Your task to perform on an android device: Show me the alarms in the clock app Image 0: 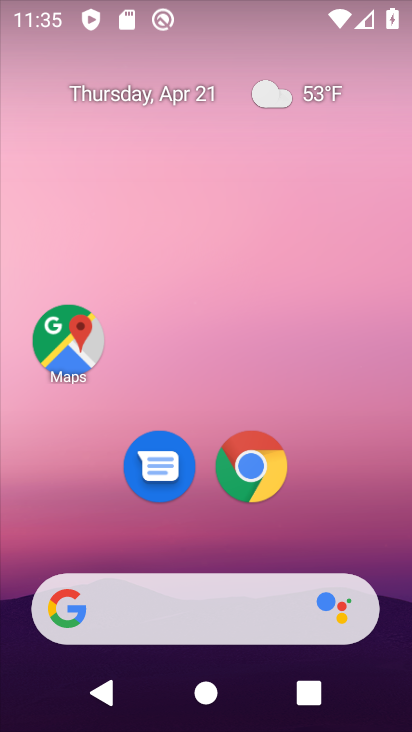
Step 0: drag from (355, 457) to (294, 1)
Your task to perform on an android device: Show me the alarms in the clock app Image 1: 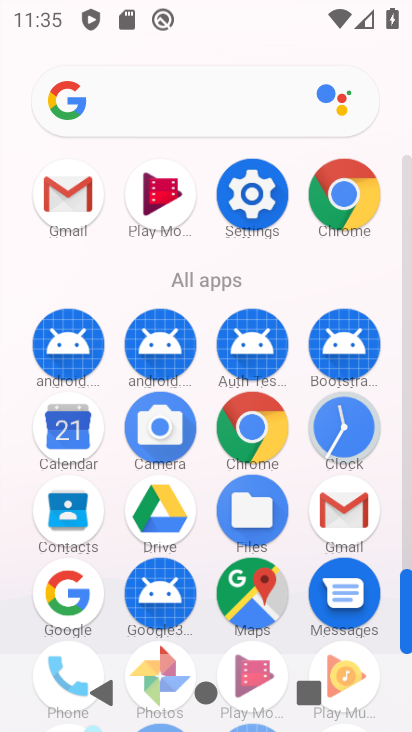
Step 1: drag from (4, 540) to (6, 276)
Your task to perform on an android device: Show me the alarms in the clock app Image 2: 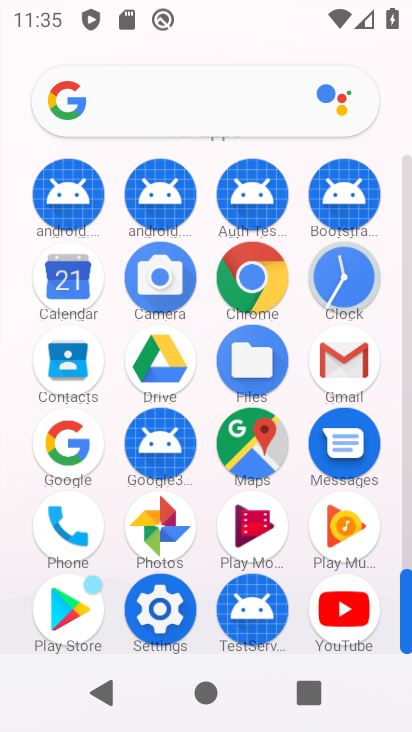
Step 2: click (347, 277)
Your task to perform on an android device: Show me the alarms in the clock app Image 3: 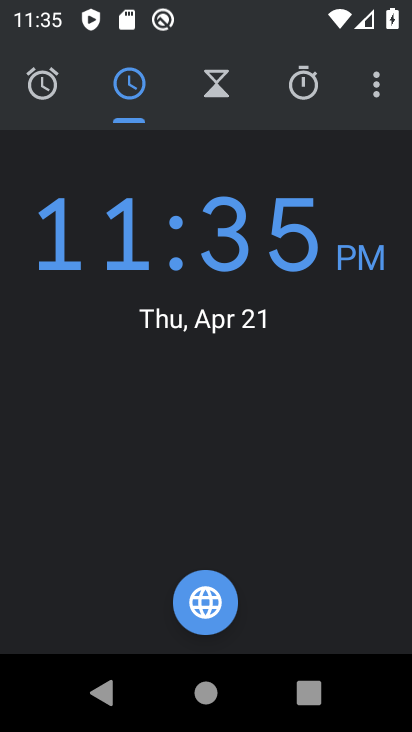
Step 3: click (51, 67)
Your task to perform on an android device: Show me the alarms in the clock app Image 4: 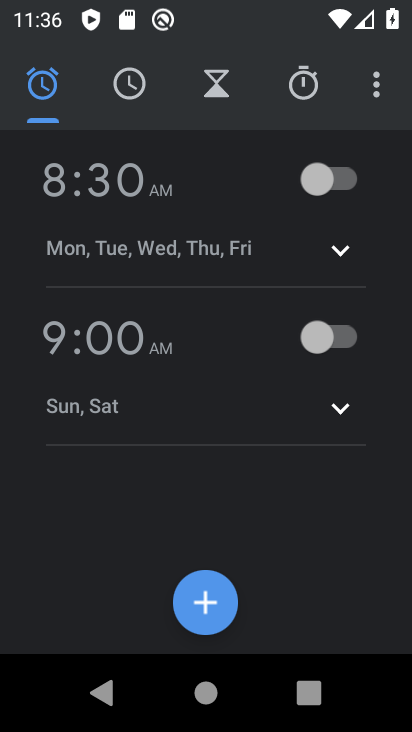
Step 4: task complete